Your task to perform on an android device: turn off smart reply in the gmail app Image 0: 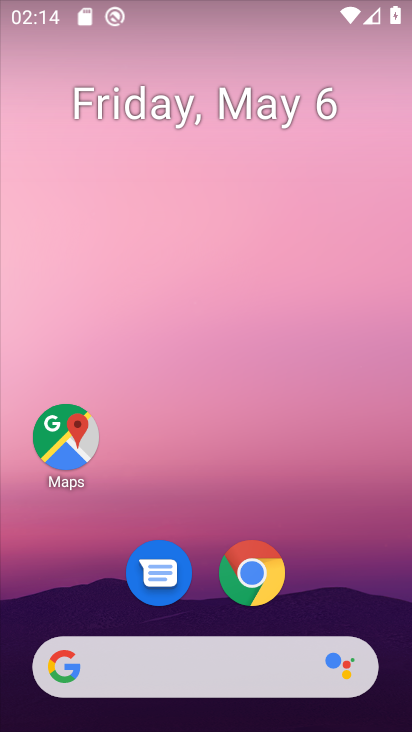
Step 0: drag from (334, 573) to (337, 262)
Your task to perform on an android device: turn off smart reply in the gmail app Image 1: 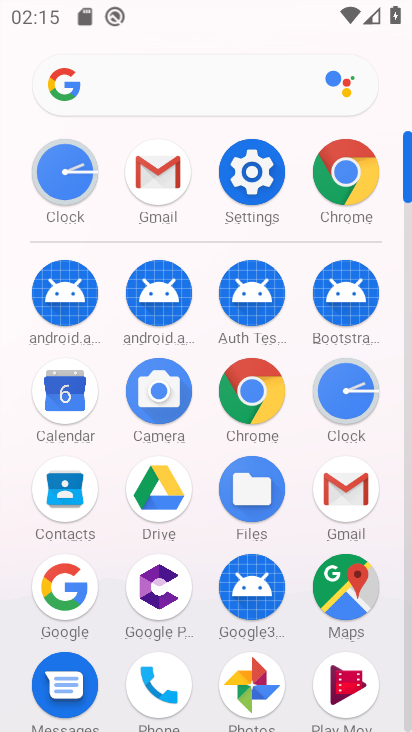
Step 1: click (169, 158)
Your task to perform on an android device: turn off smart reply in the gmail app Image 2: 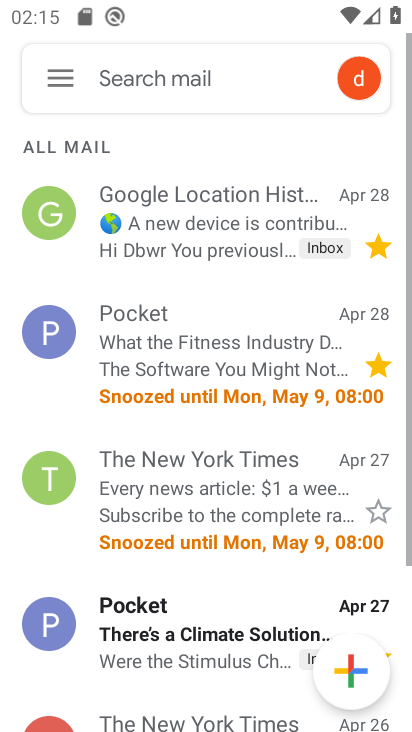
Step 2: click (63, 80)
Your task to perform on an android device: turn off smart reply in the gmail app Image 3: 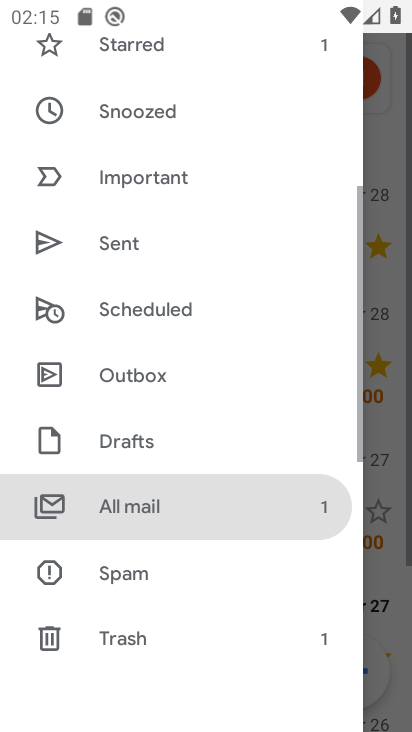
Step 3: drag from (146, 590) to (217, 186)
Your task to perform on an android device: turn off smart reply in the gmail app Image 4: 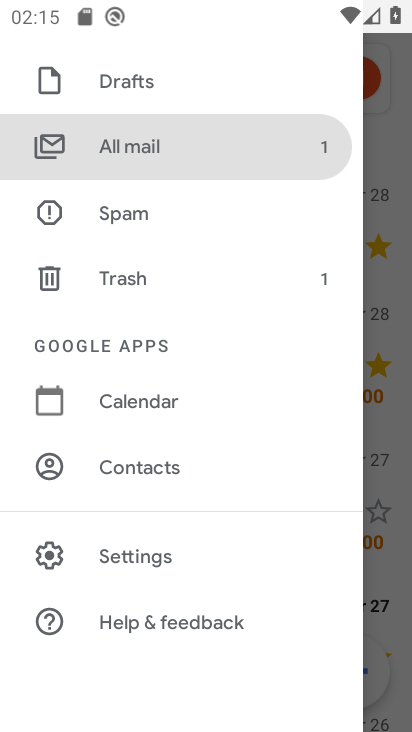
Step 4: click (151, 558)
Your task to perform on an android device: turn off smart reply in the gmail app Image 5: 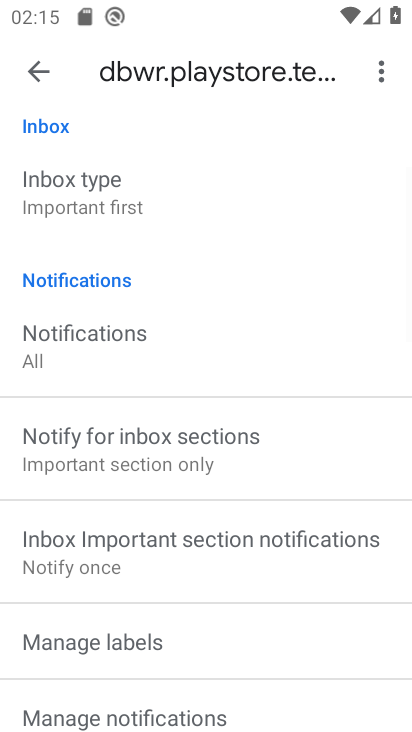
Step 5: task complete